Your task to perform on an android device: turn off airplane mode Image 0: 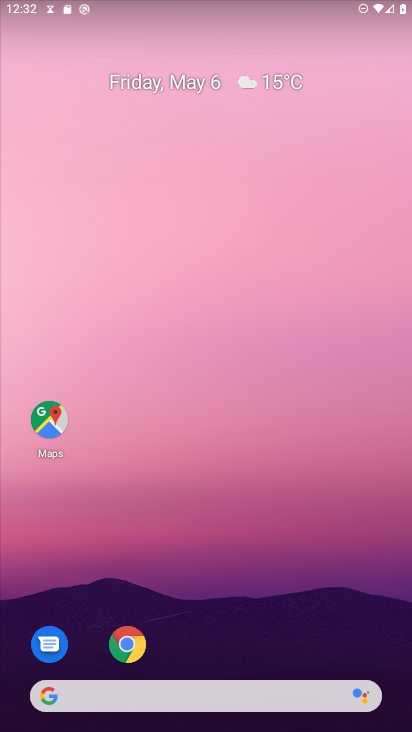
Step 0: drag from (314, 589) to (210, 2)
Your task to perform on an android device: turn off airplane mode Image 1: 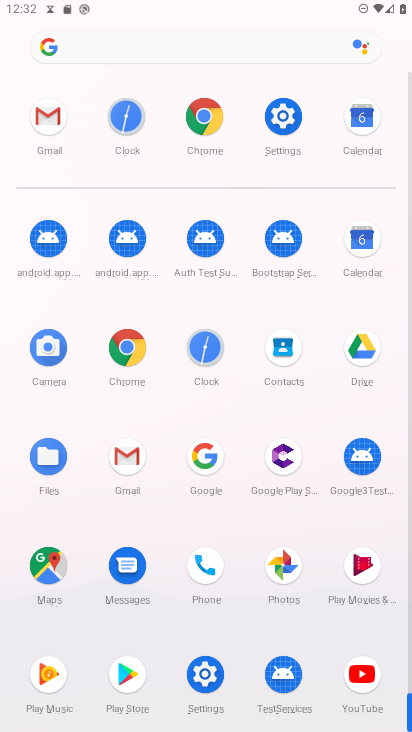
Step 1: drag from (10, 508) to (9, 236)
Your task to perform on an android device: turn off airplane mode Image 2: 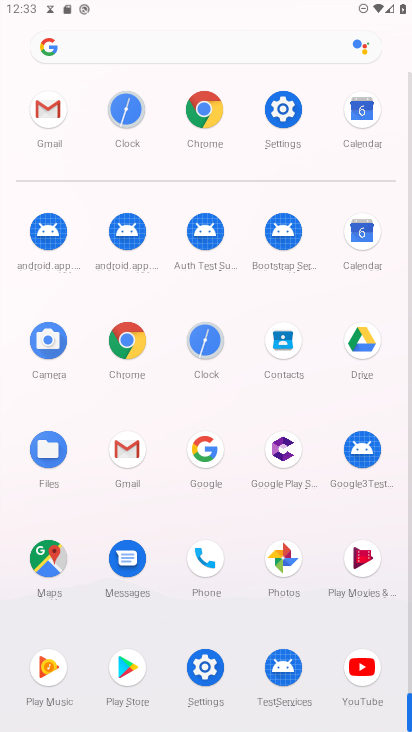
Step 2: click (208, 665)
Your task to perform on an android device: turn off airplane mode Image 3: 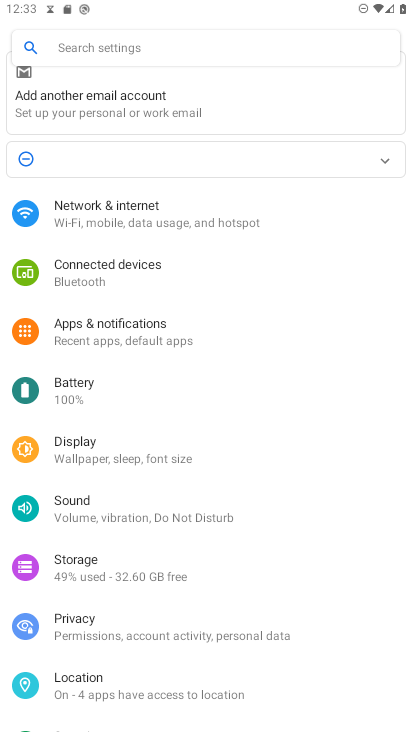
Step 3: click (178, 209)
Your task to perform on an android device: turn off airplane mode Image 4: 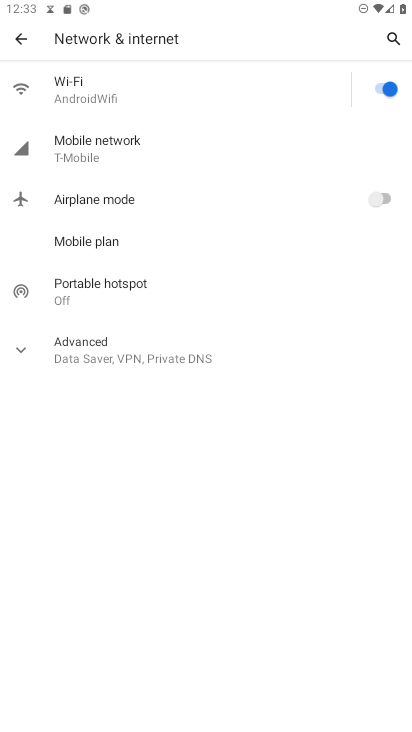
Step 4: click (24, 344)
Your task to perform on an android device: turn off airplane mode Image 5: 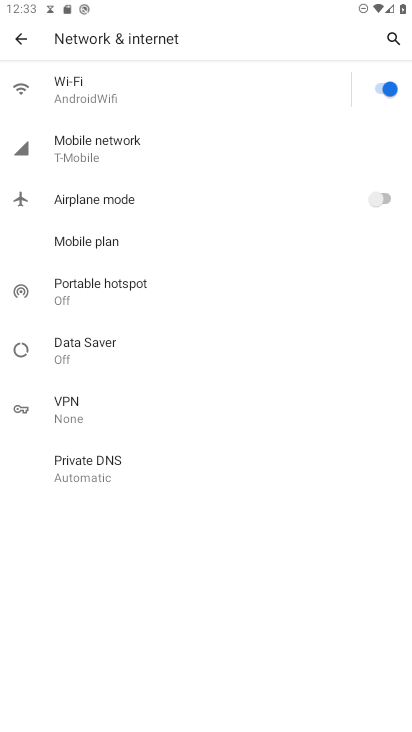
Step 5: task complete